Your task to perform on an android device: Go to Yahoo.com Image 0: 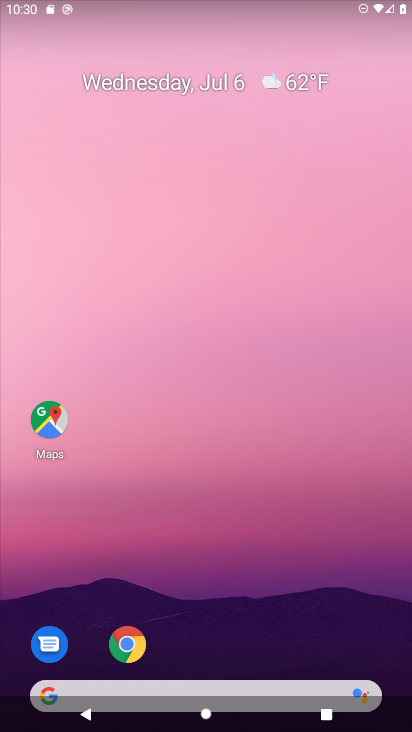
Step 0: press home button
Your task to perform on an android device: Go to Yahoo.com Image 1: 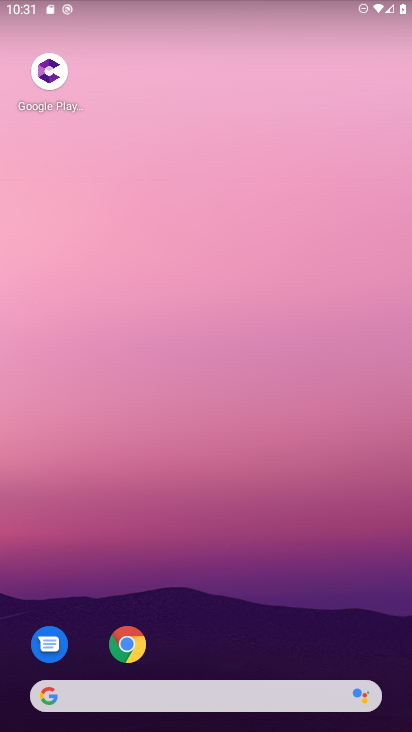
Step 1: click (48, 688)
Your task to perform on an android device: Go to Yahoo.com Image 2: 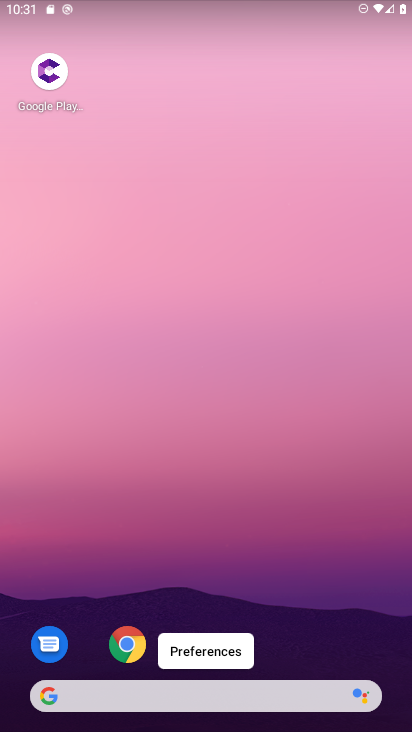
Step 2: click (47, 698)
Your task to perform on an android device: Go to Yahoo.com Image 3: 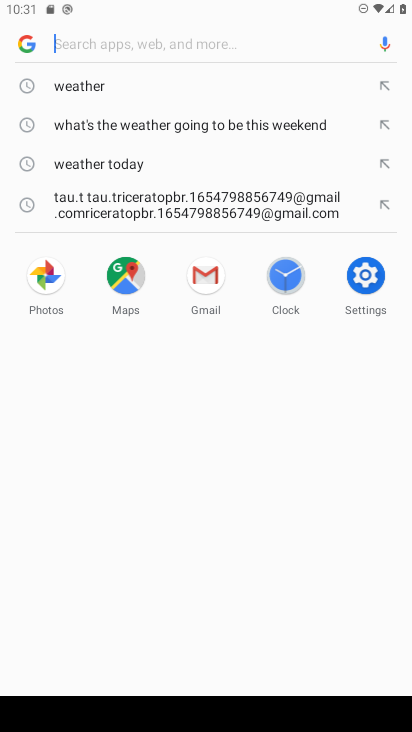
Step 3: type "Yahoo.com"
Your task to perform on an android device: Go to Yahoo.com Image 4: 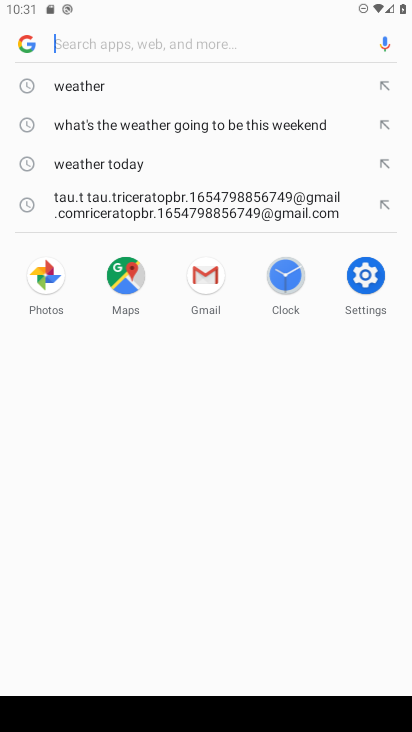
Step 4: click (161, 43)
Your task to perform on an android device: Go to Yahoo.com Image 5: 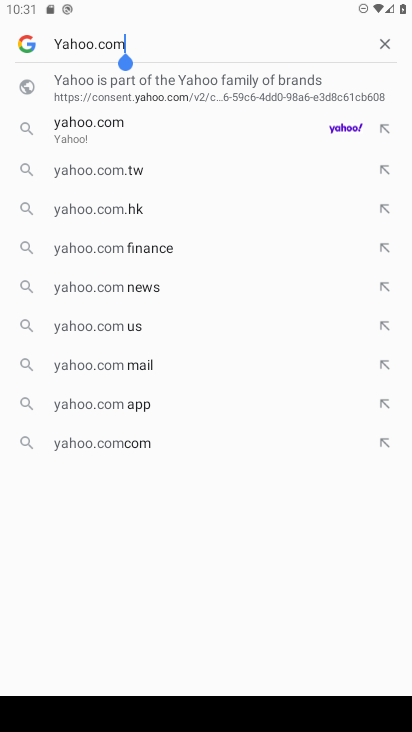
Step 5: click (88, 125)
Your task to perform on an android device: Go to Yahoo.com Image 6: 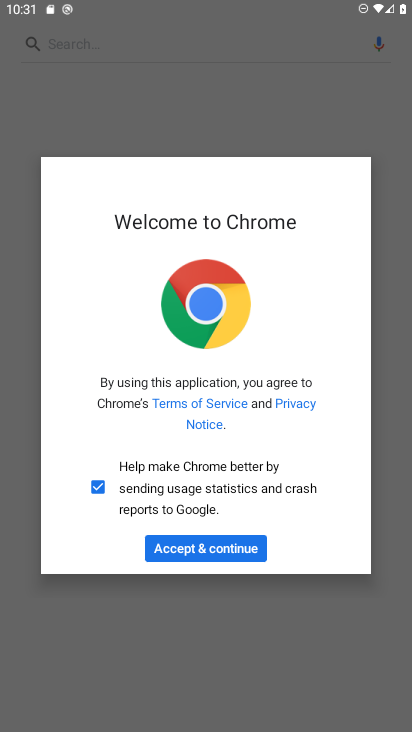
Step 6: click (184, 557)
Your task to perform on an android device: Go to Yahoo.com Image 7: 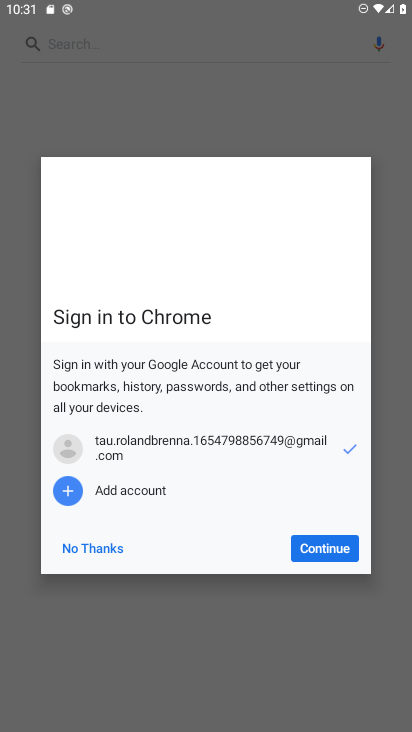
Step 7: click (301, 550)
Your task to perform on an android device: Go to Yahoo.com Image 8: 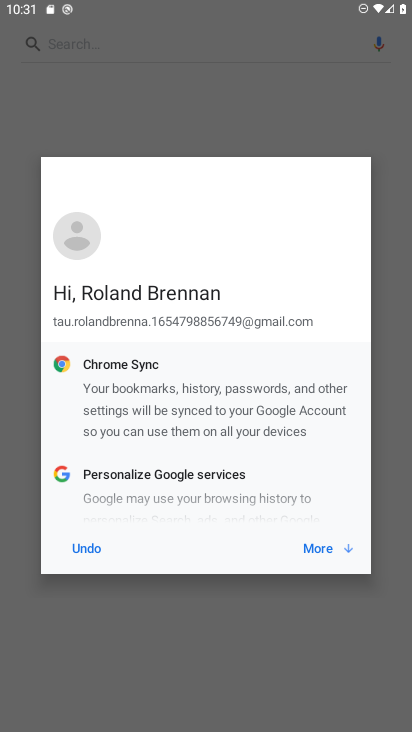
Step 8: click (302, 550)
Your task to perform on an android device: Go to Yahoo.com Image 9: 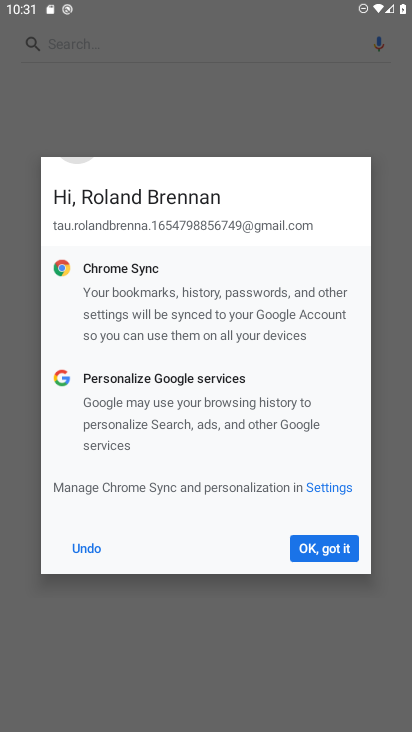
Step 9: click (302, 550)
Your task to perform on an android device: Go to Yahoo.com Image 10: 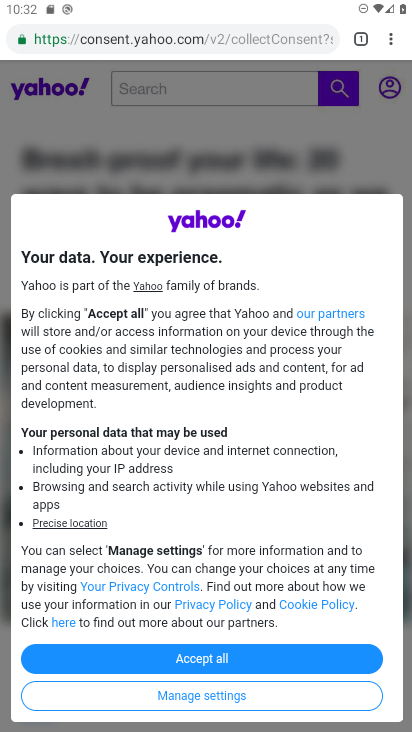
Step 10: click (186, 651)
Your task to perform on an android device: Go to Yahoo.com Image 11: 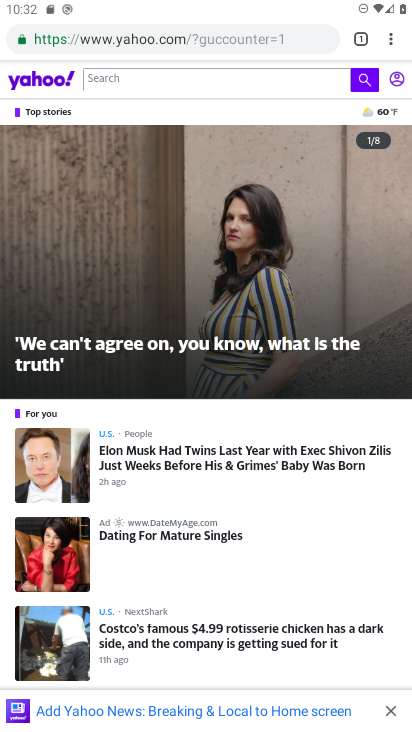
Step 11: task complete